Your task to perform on an android device: install app "TextNow: Call + Text Unlimited" Image 0: 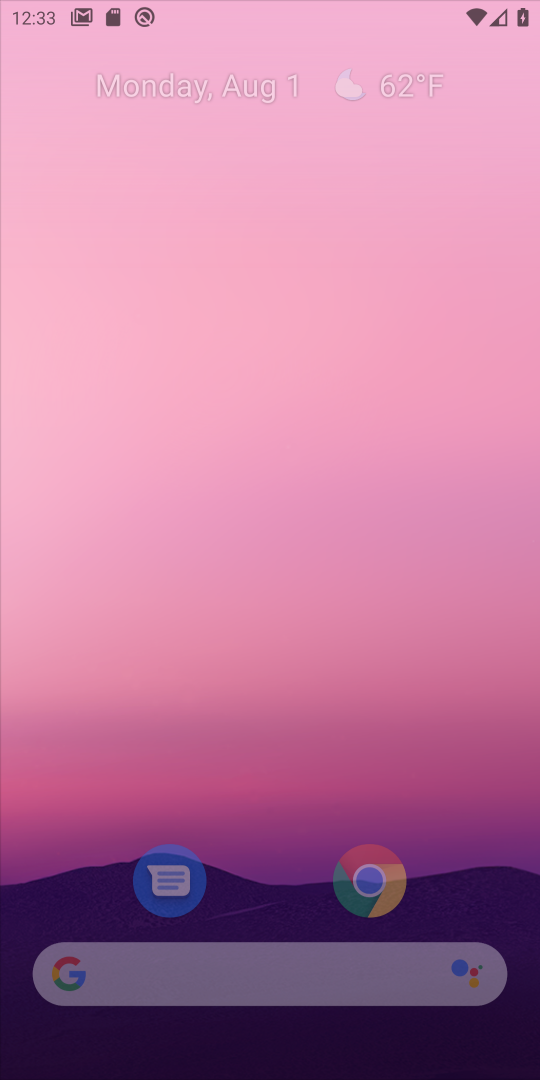
Step 0: press home button
Your task to perform on an android device: install app "TextNow: Call + Text Unlimited" Image 1: 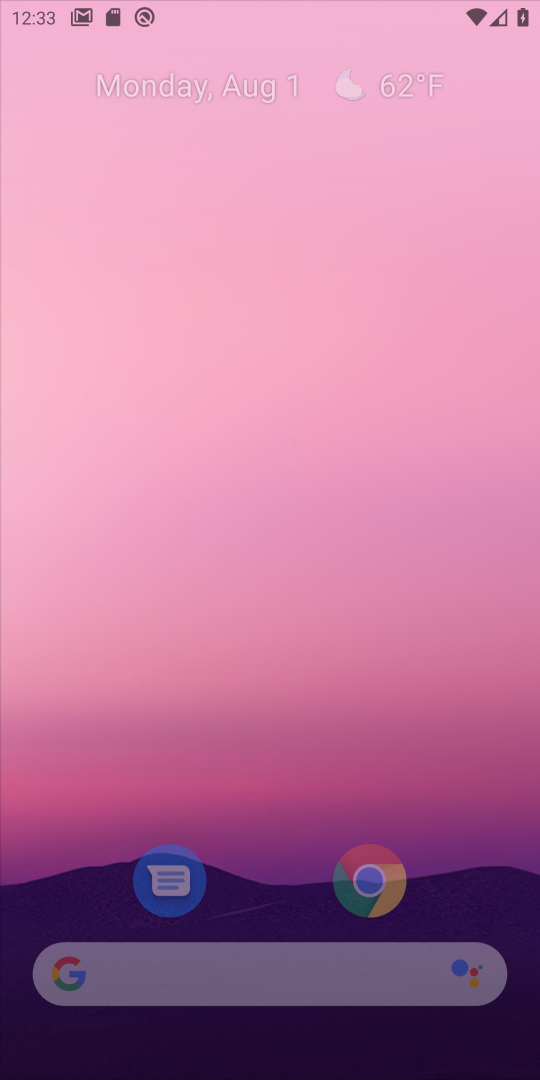
Step 1: click (442, 70)
Your task to perform on an android device: install app "TextNow: Call + Text Unlimited" Image 2: 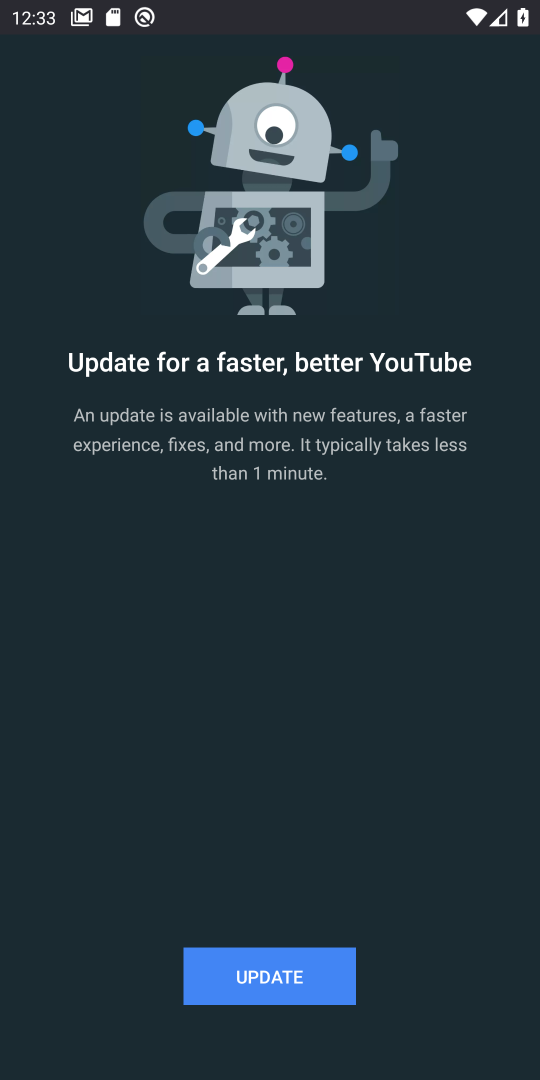
Step 2: drag from (263, 847) to (281, 158)
Your task to perform on an android device: install app "TextNow: Call + Text Unlimited" Image 3: 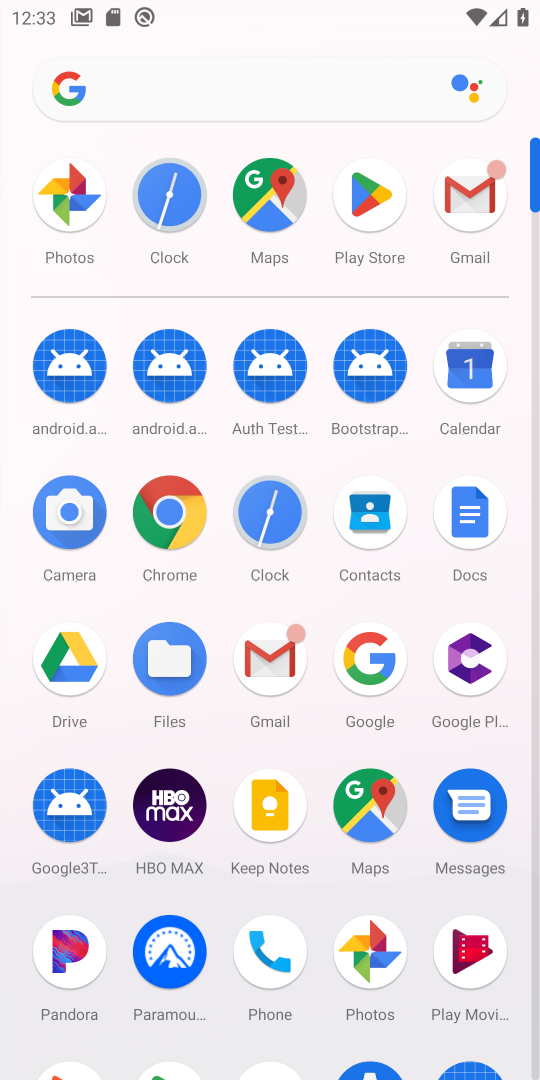
Step 3: click (386, 239)
Your task to perform on an android device: install app "TextNow: Call + Text Unlimited" Image 4: 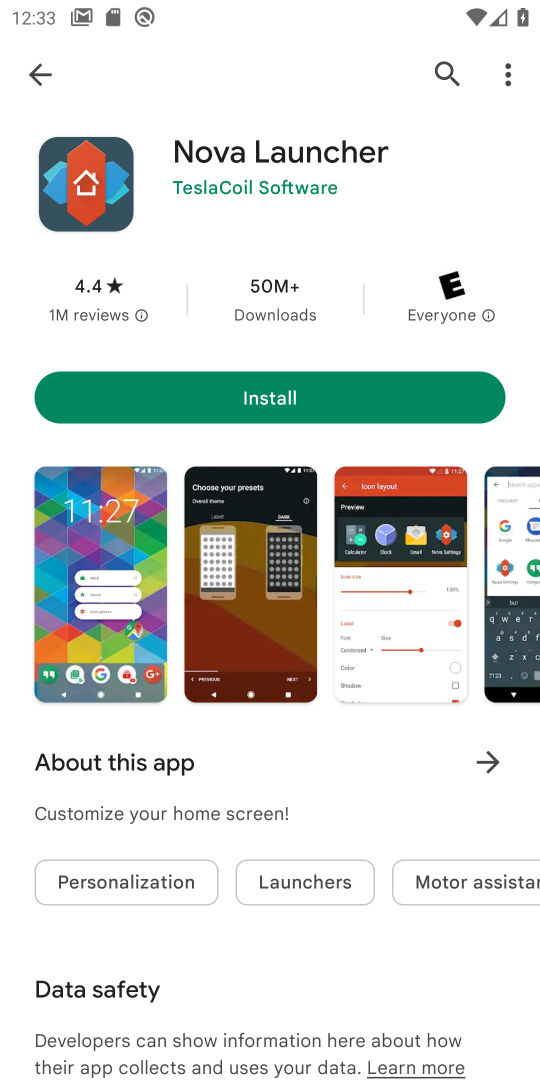
Step 4: click (459, 73)
Your task to perform on an android device: install app "TextNow: Call + Text Unlimited" Image 5: 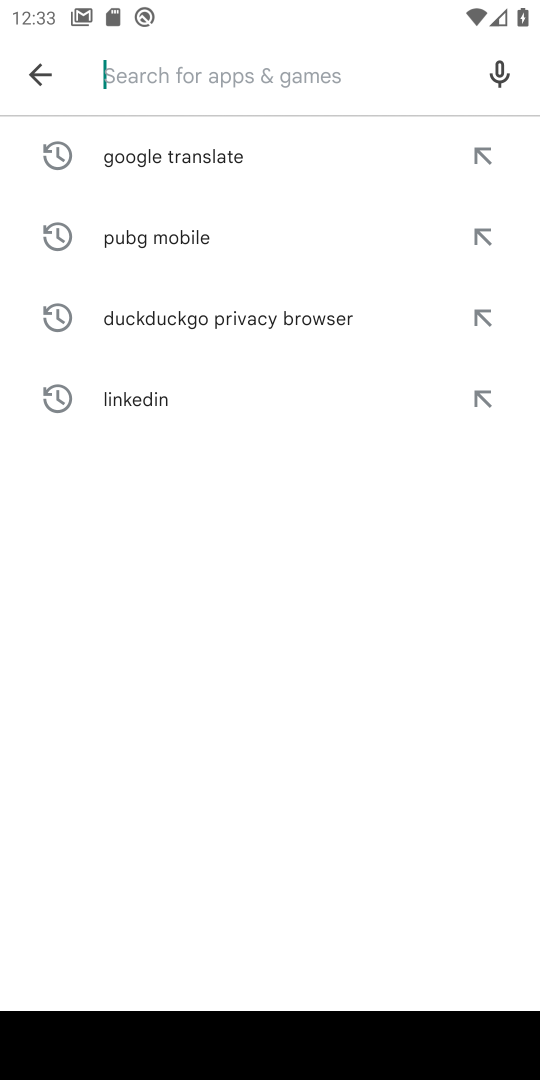
Step 5: type "TextNow: Call + Text Unlimited"
Your task to perform on an android device: install app "TextNow: Call + Text Unlimited" Image 6: 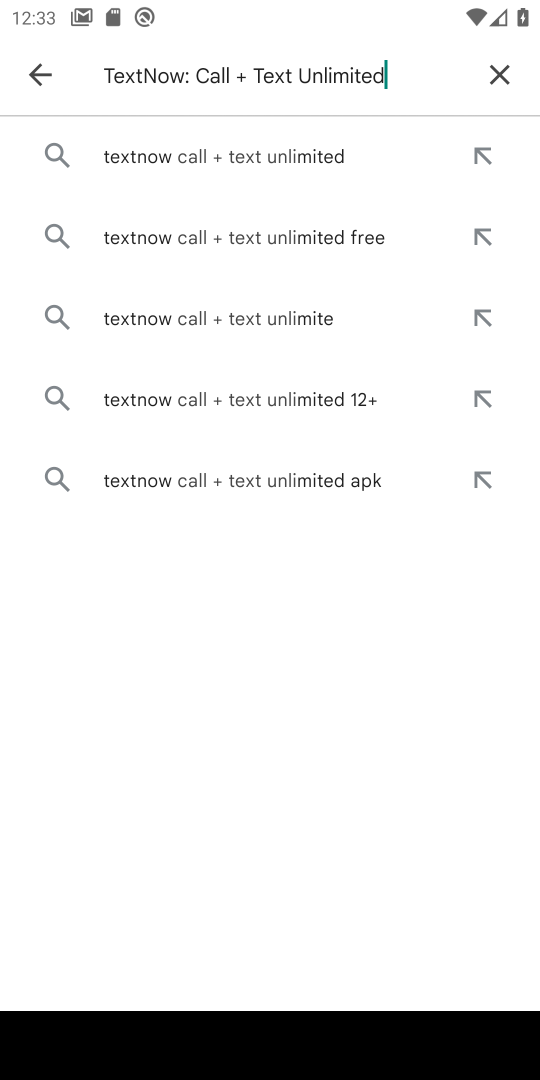
Step 6: type ""
Your task to perform on an android device: install app "TextNow: Call + Text Unlimited" Image 7: 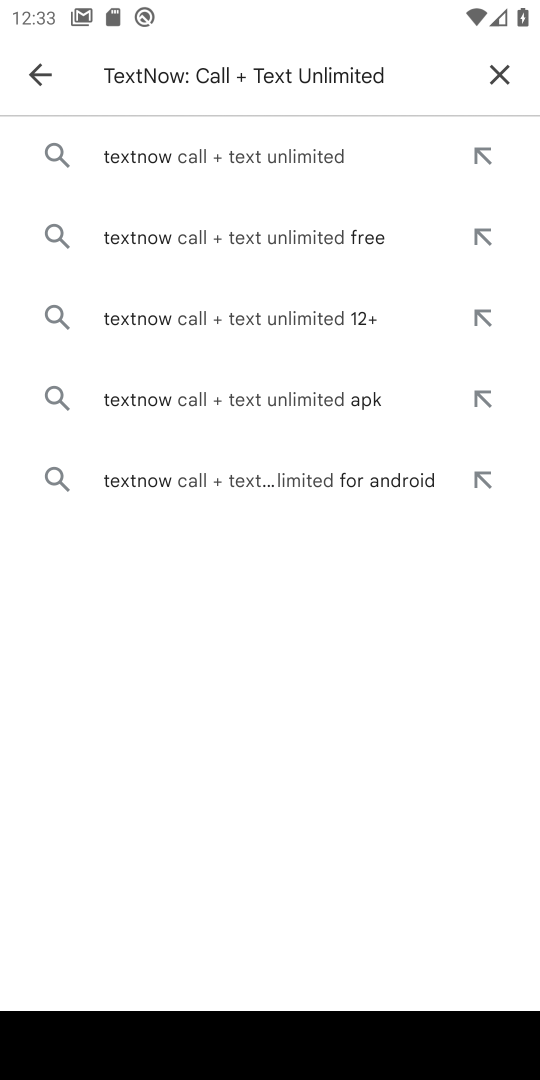
Step 7: click (205, 170)
Your task to perform on an android device: install app "TextNow: Call + Text Unlimited" Image 8: 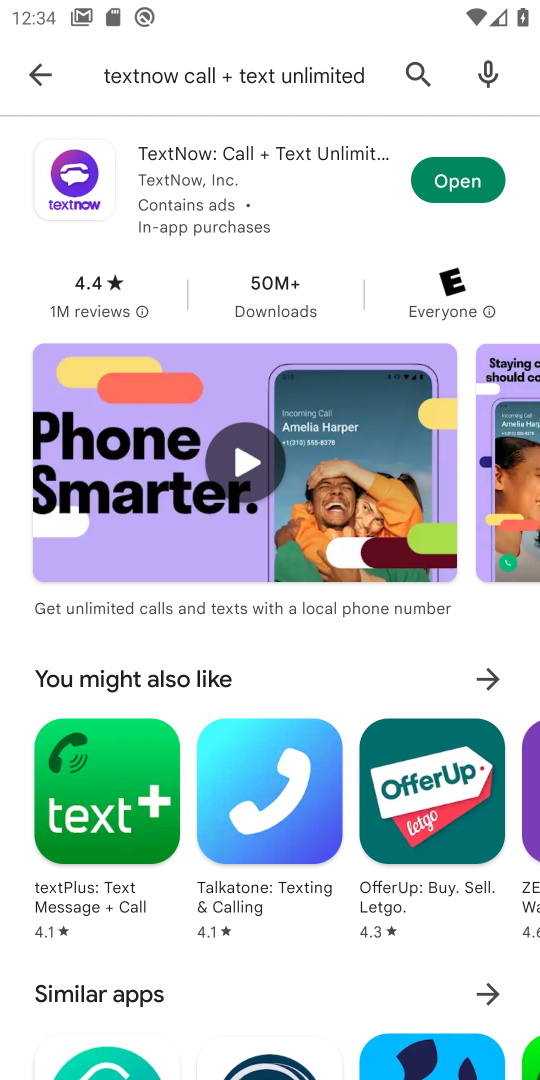
Step 8: task complete